Your task to perform on an android device: turn on improve location accuracy Image 0: 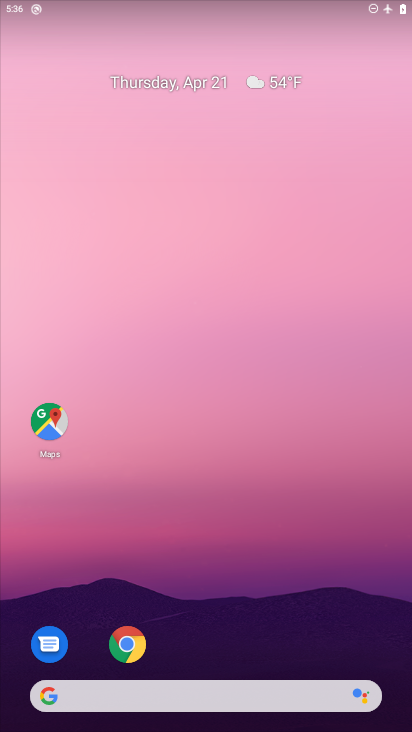
Step 0: drag from (217, 673) to (288, 234)
Your task to perform on an android device: turn on improve location accuracy Image 1: 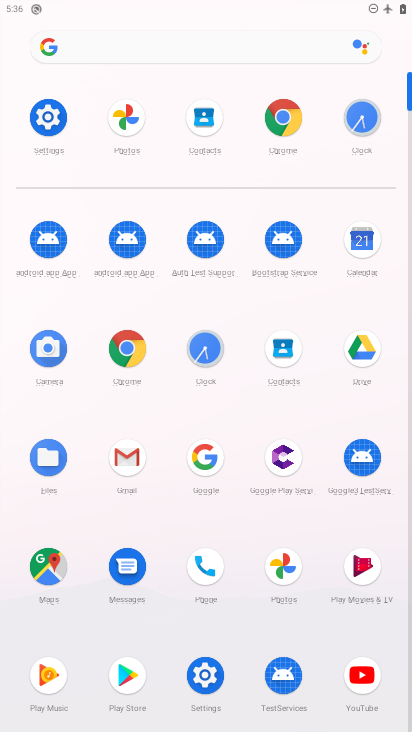
Step 1: click (50, 122)
Your task to perform on an android device: turn on improve location accuracy Image 2: 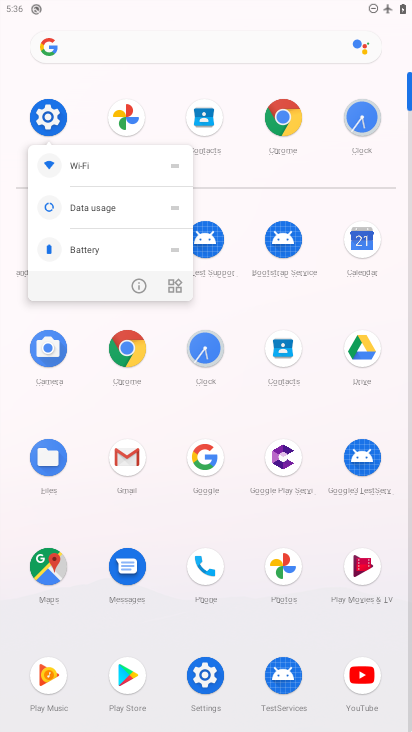
Step 2: click (50, 122)
Your task to perform on an android device: turn on improve location accuracy Image 3: 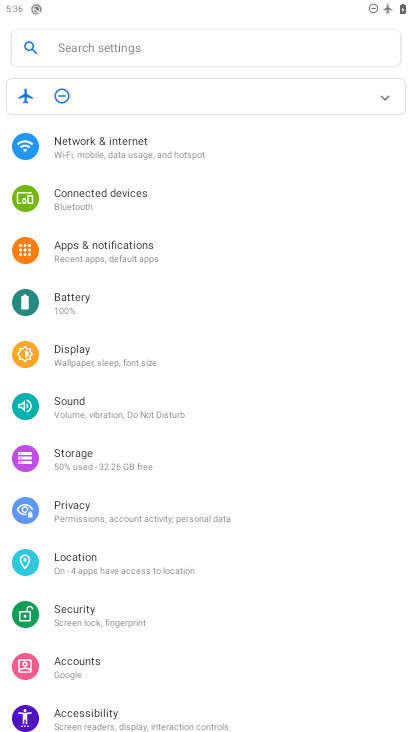
Step 3: click (74, 569)
Your task to perform on an android device: turn on improve location accuracy Image 4: 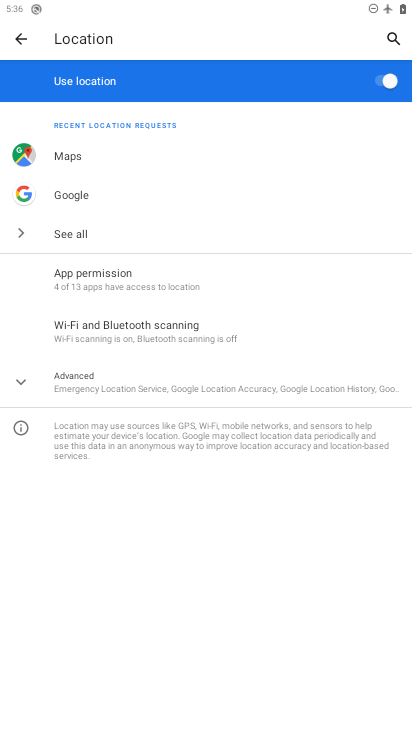
Step 4: click (70, 325)
Your task to perform on an android device: turn on improve location accuracy Image 5: 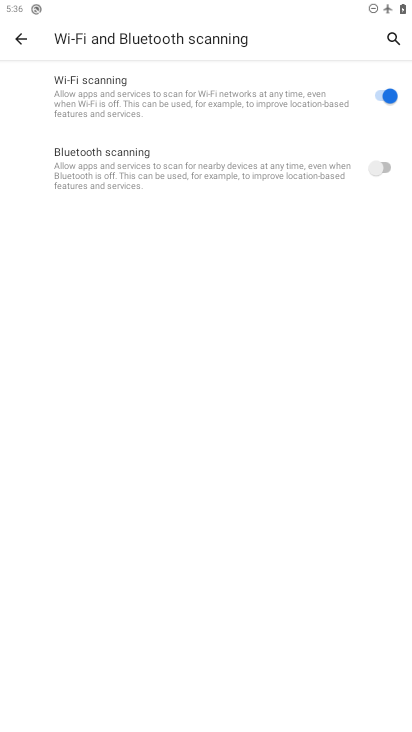
Step 5: click (18, 40)
Your task to perform on an android device: turn on improve location accuracy Image 6: 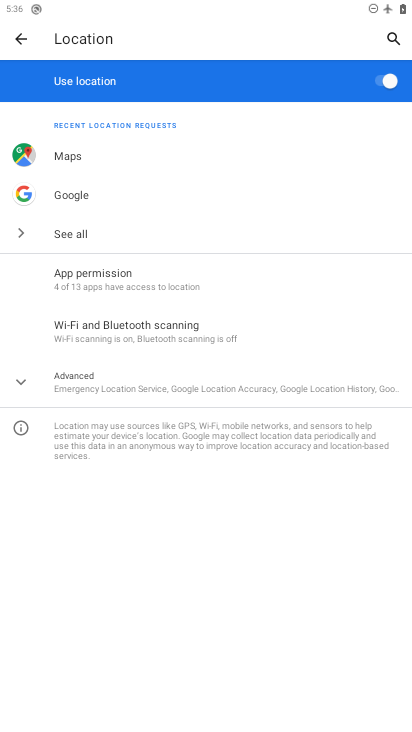
Step 6: click (111, 391)
Your task to perform on an android device: turn on improve location accuracy Image 7: 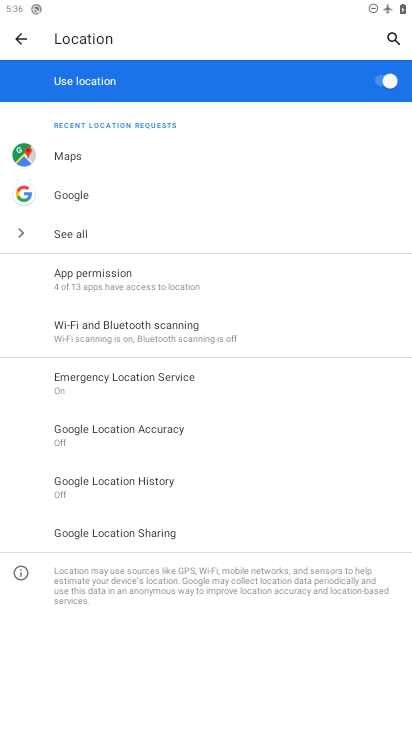
Step 7: click (135, 429)
Your task to perform on an android device: turn on improve location accuracy Image 8: 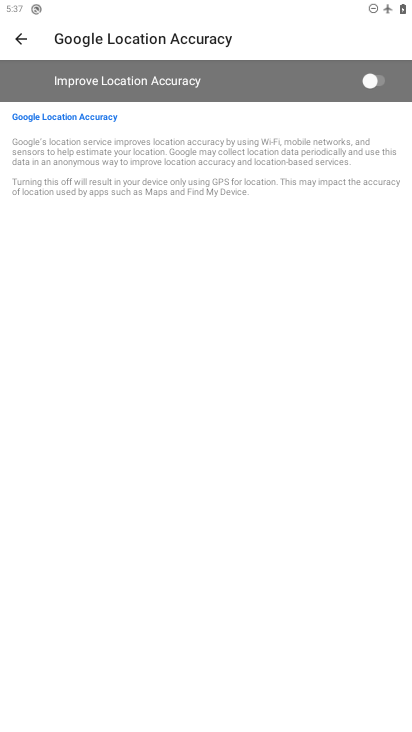
Step 8: click (378, 79)
Your task to perform on an android device: turn on improve location accuracy Image 9: 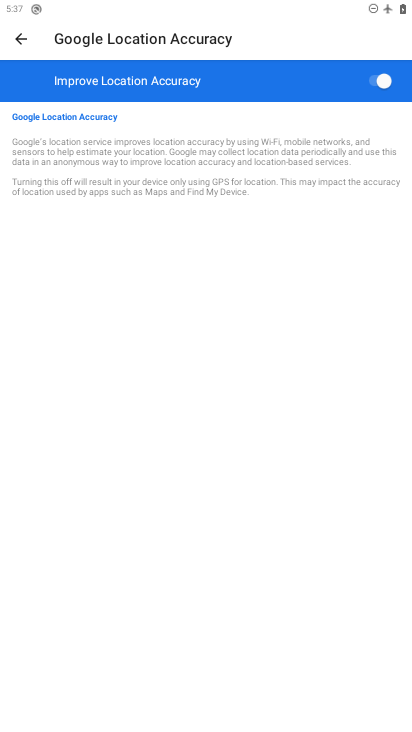
Step 9: task complete